Your task to perform on an android device: open sync settings in chrome Image 0: 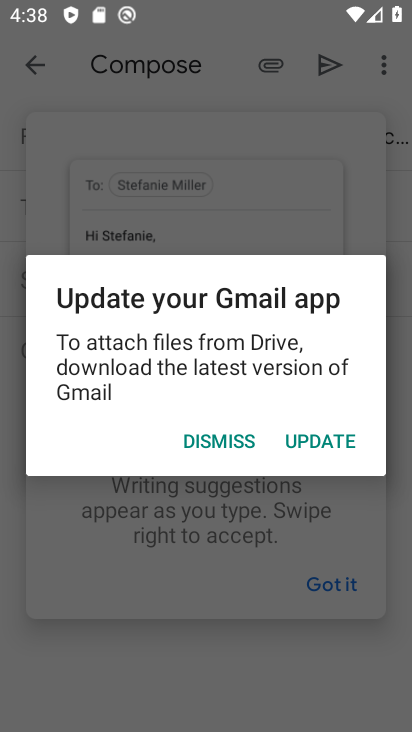
Step 0: press home button
Your task to perform on an android device: open sync settings in chrome Image 1: 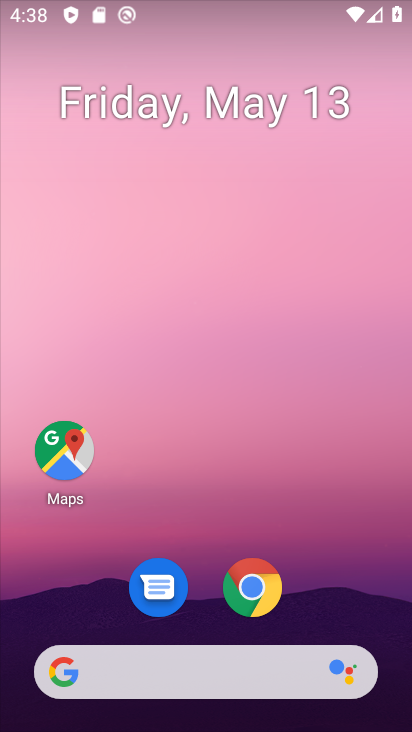
Step 1: click (250, 593)
Your task to perform on an android device: open sync settings in chrome Image 2: 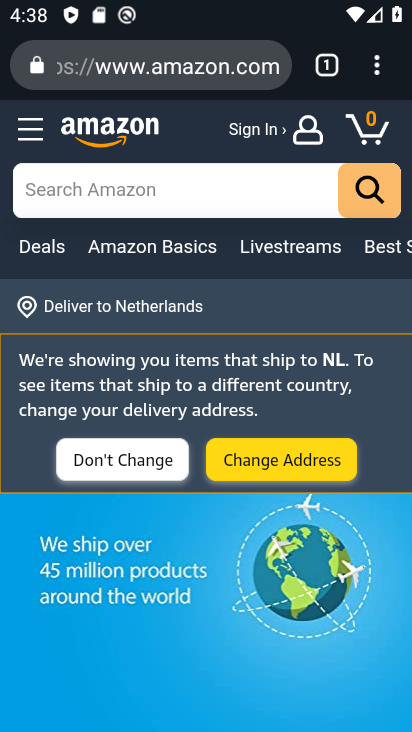
Step 2: drag from (383, 66) to (237, 638)
Your task to perform on an android device: open sync settings in chrome Image 3: 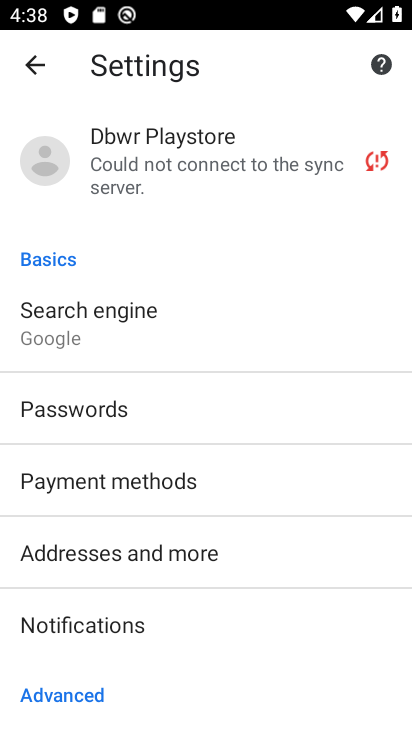
Step 3: click (133, 152)
Your task to perform on an android device: open sync settings in chrome Image 4: 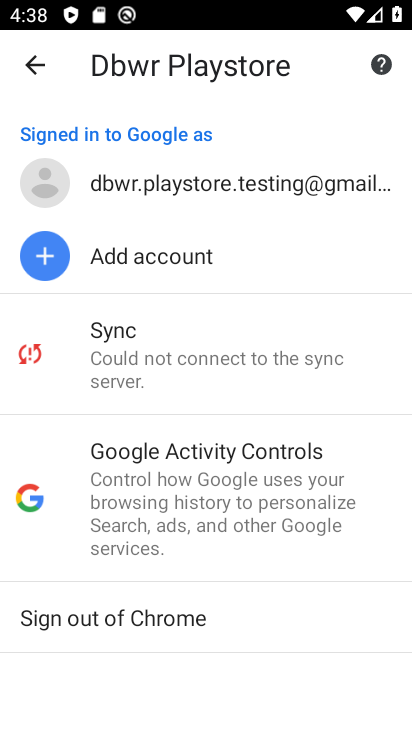
Step 4: click (181, 363)
Your task to perform on an android device: open sync settings in chrome Image 5: 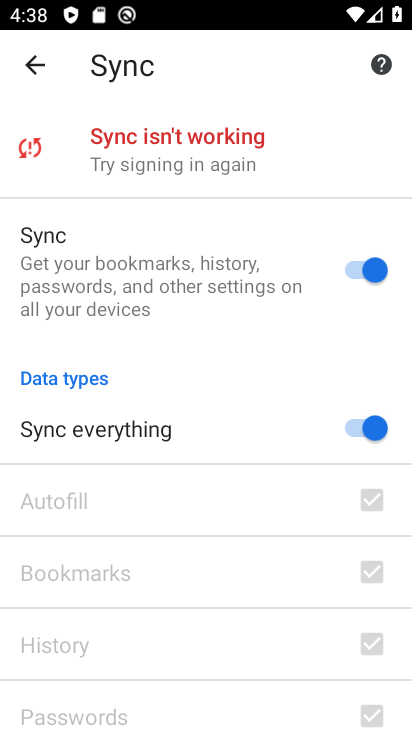
Step 5: click (207, 269)
Your task to perform on an android device: open sync settings in chrome Image 6: 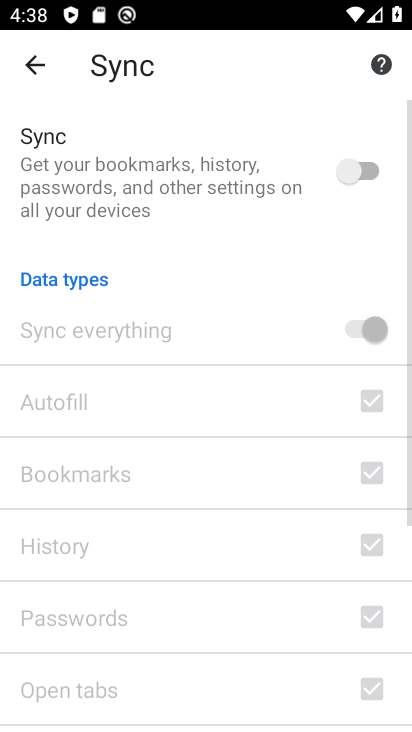
Step 6: click (225, 149)
Your task to perform on an android device: open sync settings in chrome Image 7: 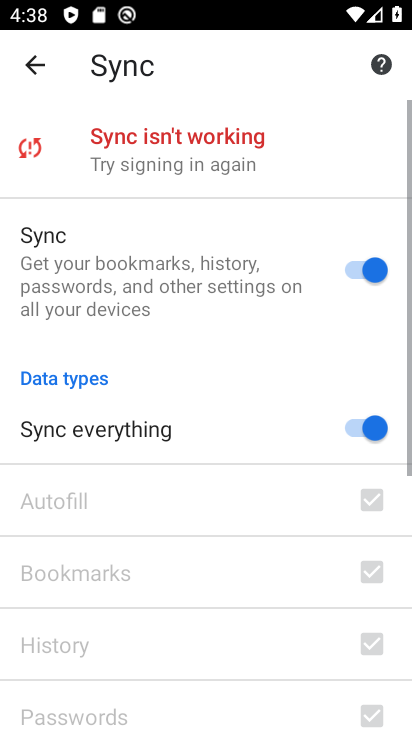
Step 7: task complete